Your task to perform on an android device: Go to location settings Image 0: 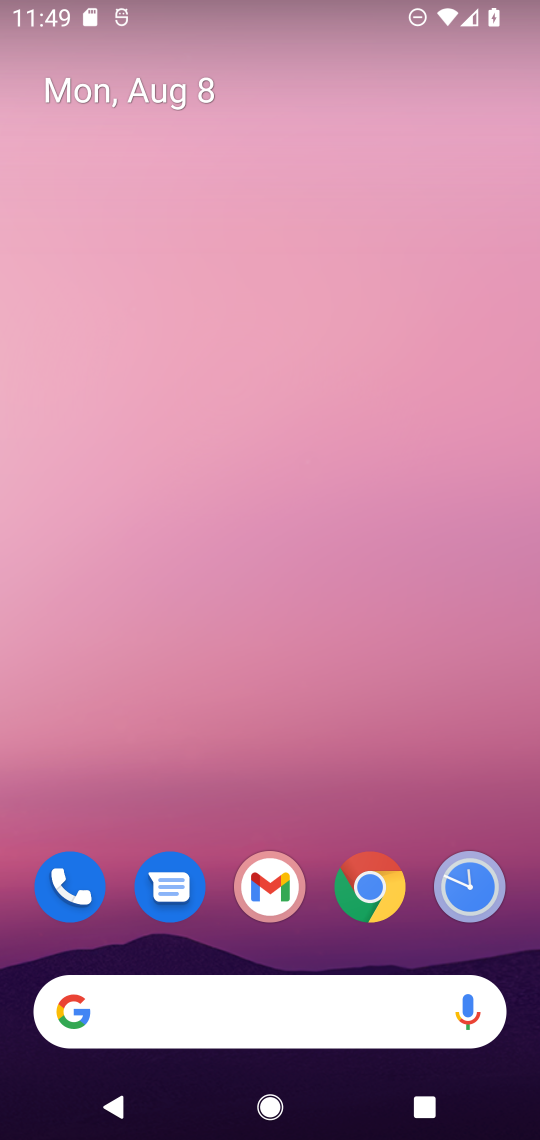
Step 0: drag from (347, 778) to (238, 95)
Your task to perform on an android device: Go to location settings Image 1: 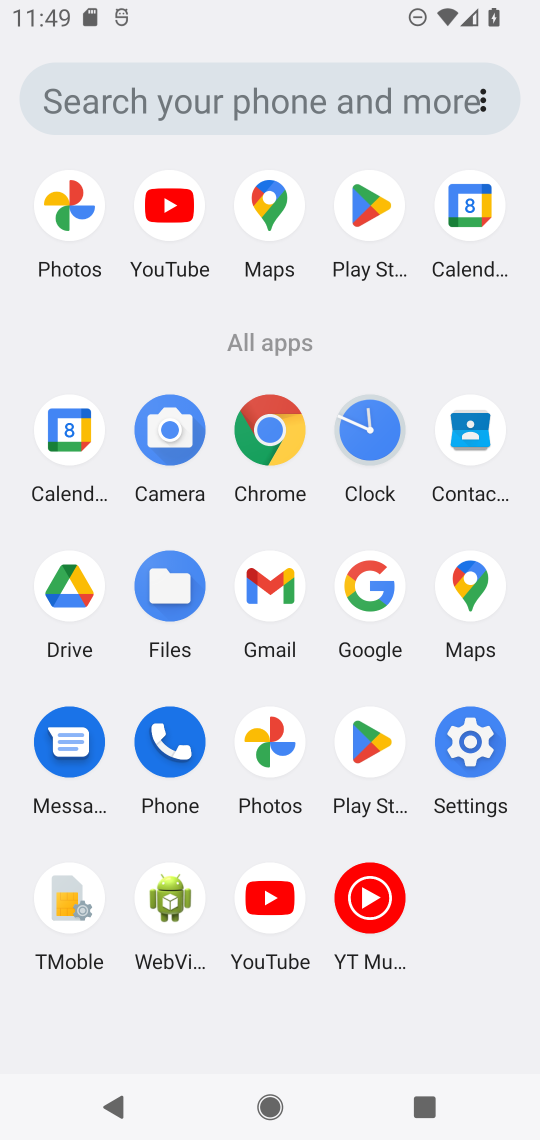
Step 1: click (463, 744)
Your task to perform on an android device: Go to location settings Image 2: 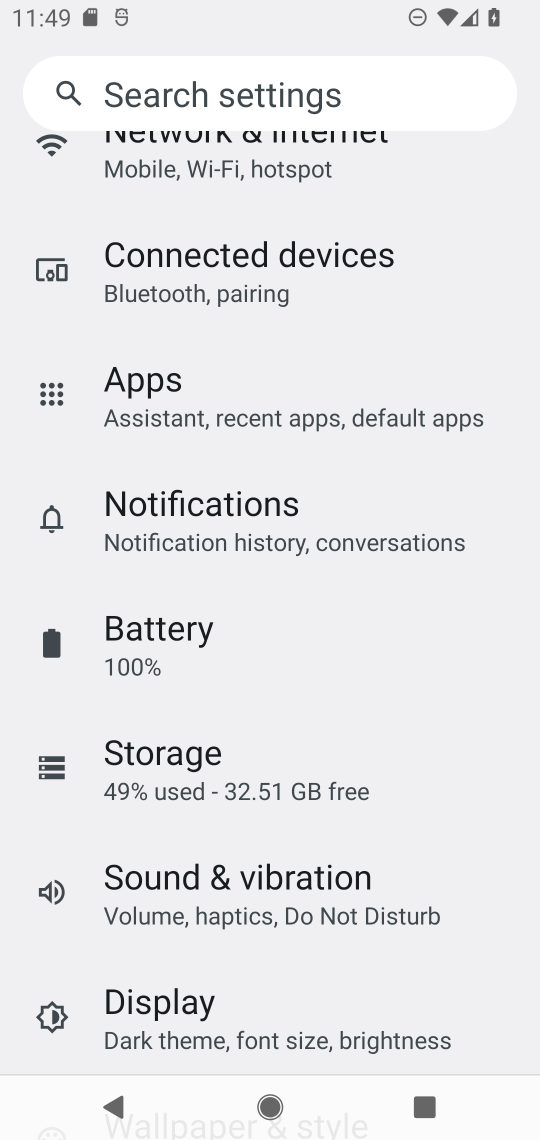
Step 2: drag from (304, 675) to (288, 133)
Your task to perform on an android device: Go to location settings Image 3: 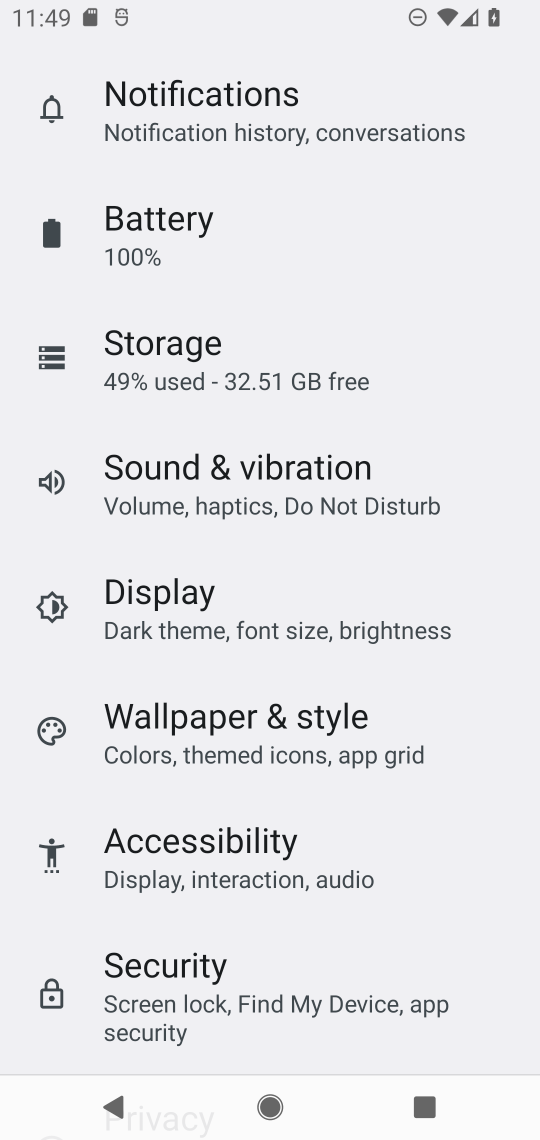
Step 3: drag from (340, 889) to (310, 364)
Your task to perform on an android device: Go to location settings Image 4: 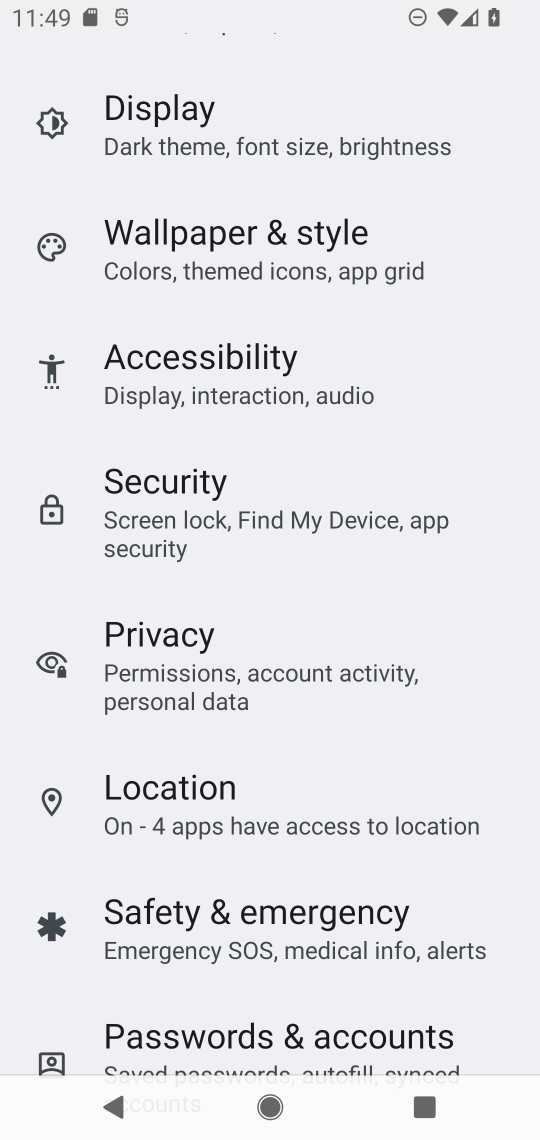
Step 4: click (179, 773)
Your task to perform on an android device: Go to location settings Image 5: 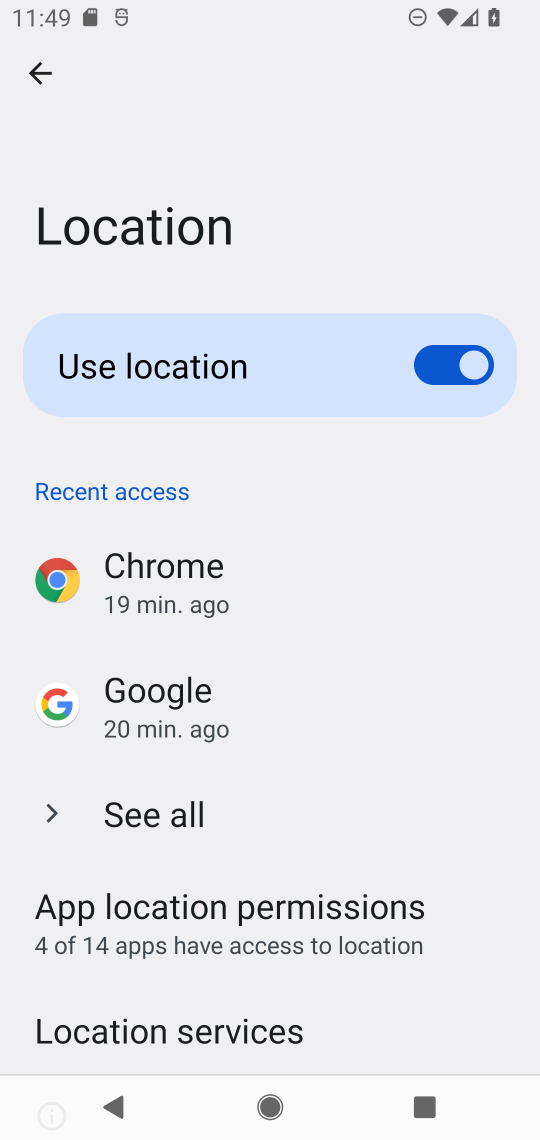
Step 5: task complete